Your task to perform on an android device: Go to Reddit.com Image 0: 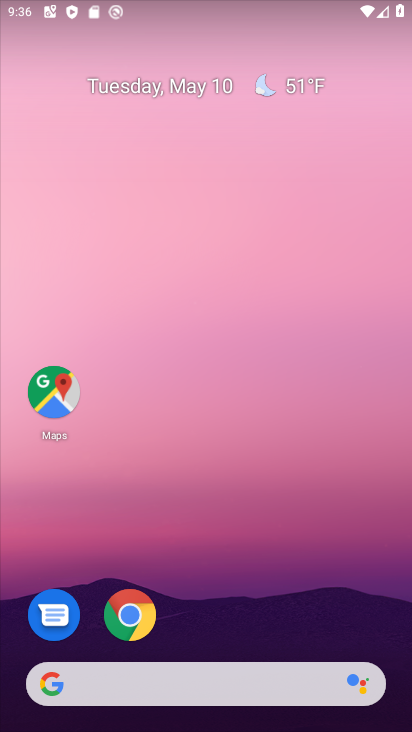
Step 0: click (130, 614)
Your task to perform on an android device: Go to Reddit.com Image 1: 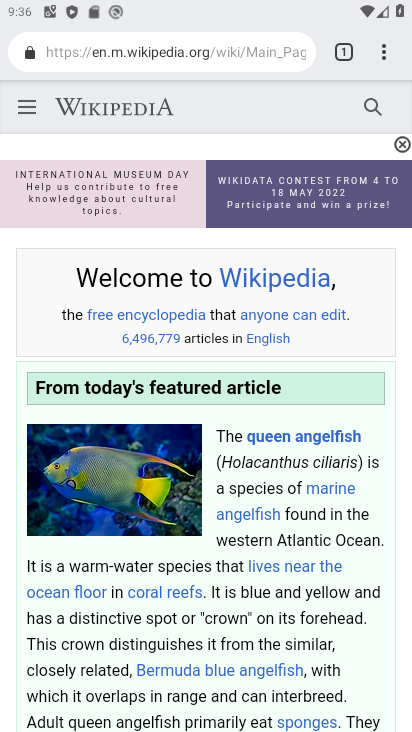
Step 1: click (342, 57)
Your task to perform on an android device: Go to Reddit.com Image 2: 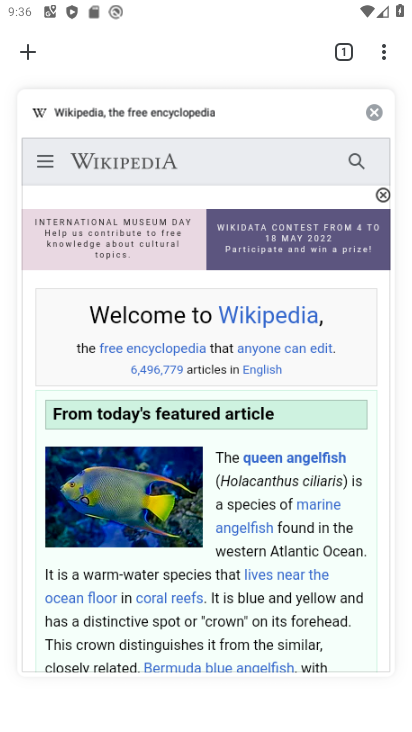
Step 2: click (28, 50)
Your task to perform on an android device: Go to Reddit.com Image 3: 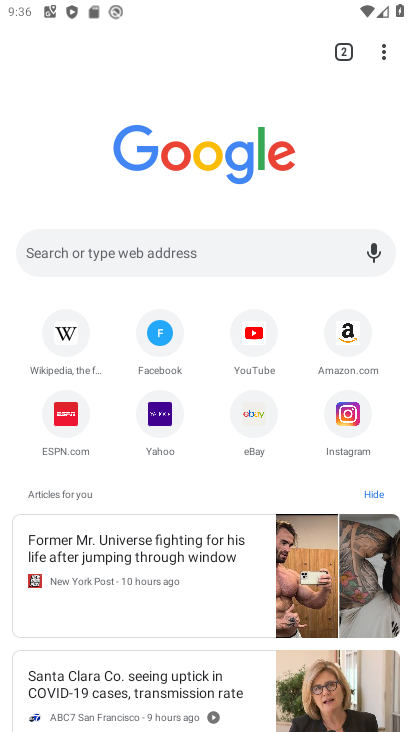
Step 3: click (196, 256)
Your task to perform on an android device: Go to Reddit.com Image 4: 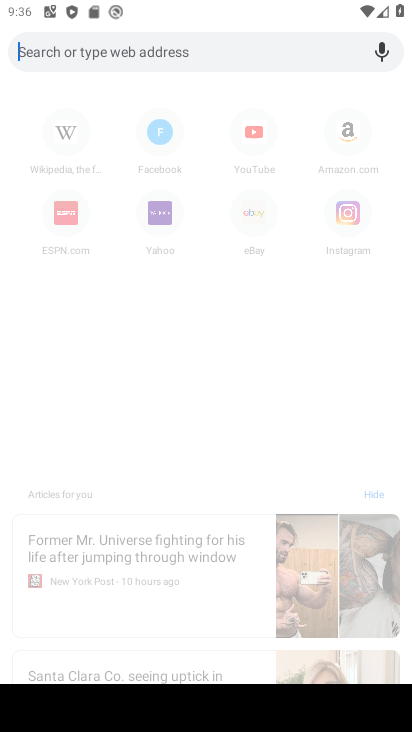
Step 4: type "Reddit.com"
Your task to perform on an android device: Go to Reddit.com Image 5: 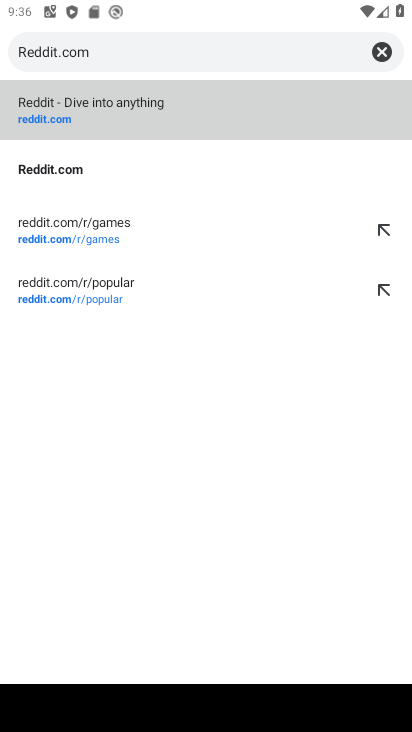
Step 5: click (103, 179)
Your task to perform on an android device: Go to Reddit.com Image 6: 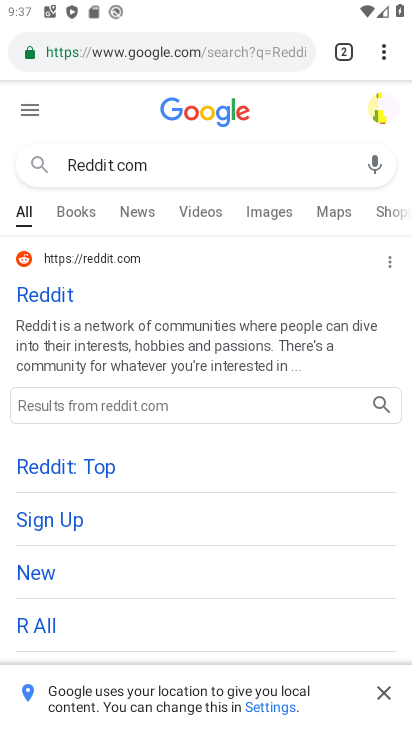
Step 6: task complete